Your task to perform on an android device: What is the news today? Image 0: 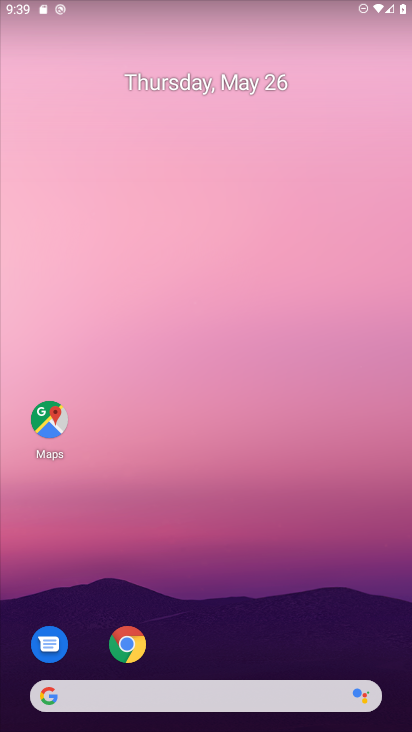
Step 0: drag from (1, 291) to (381, 234)
Your task to perform on an android device: What is the news today? Image 1: 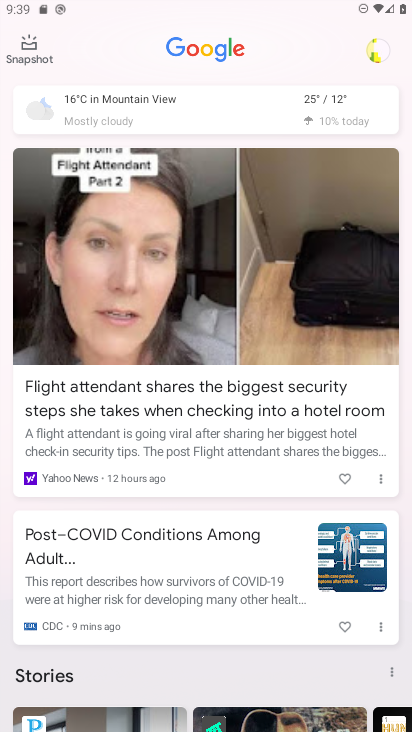
Step 1: task complete